Your task to perform on an android device: Turn on the flashlight Image 0: 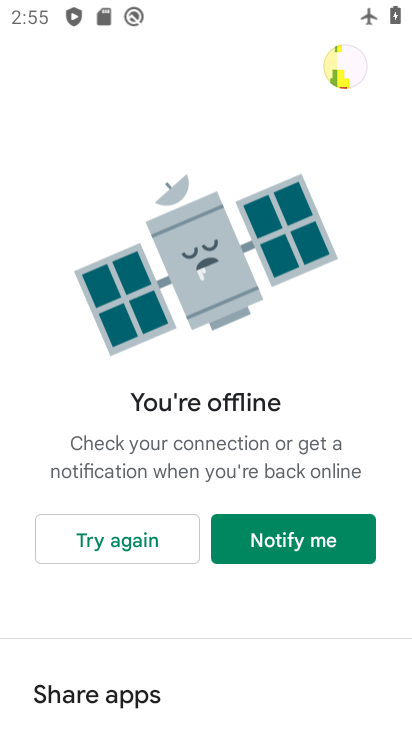
Step 0: press home button
Your task to perform on an android device: Turn on the flashlight Image 1: 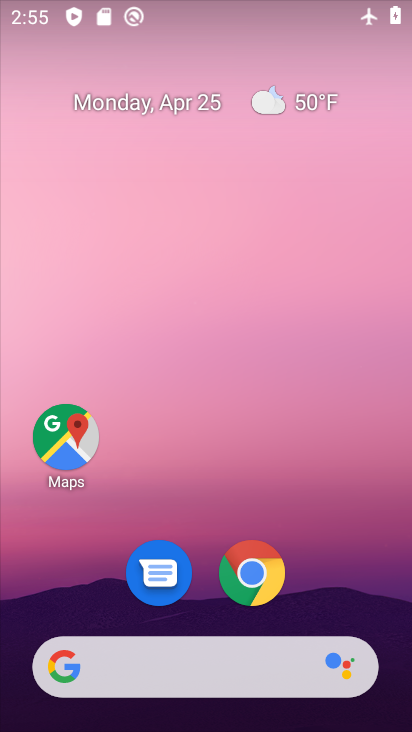
Step 1: drag from (339, 462) to (295, 149)
Your task to perform on an android device: Turn on the flashlight Image 2: 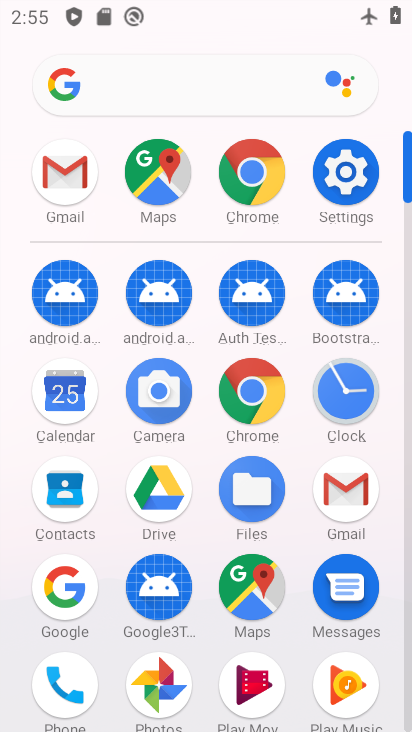
Step 2: click (342, 181)
Your task to perform on an android device: Turn on the flashlight Image 3: 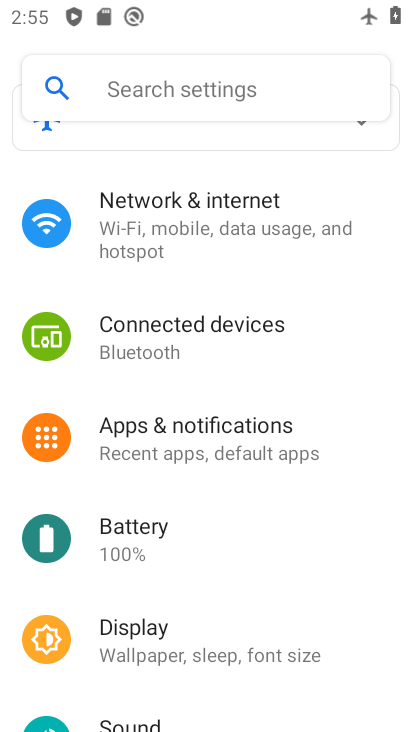
Step 3: task complete